Your task to perform on an android device: change alarm snooze length Image 0: 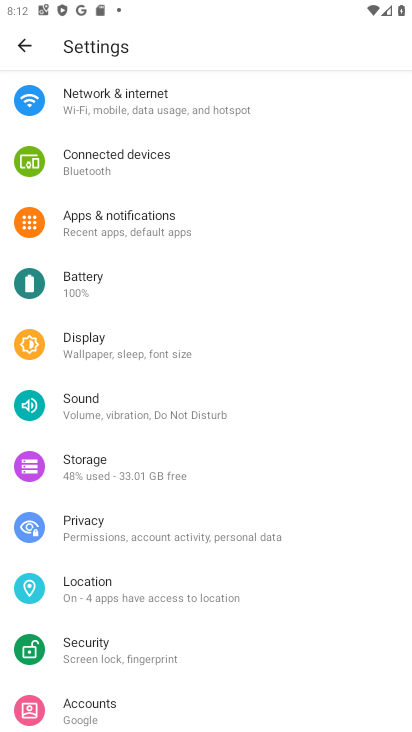
Step 0: press home button
Your task to perform on an android device: change alarm snooze length Image 1: 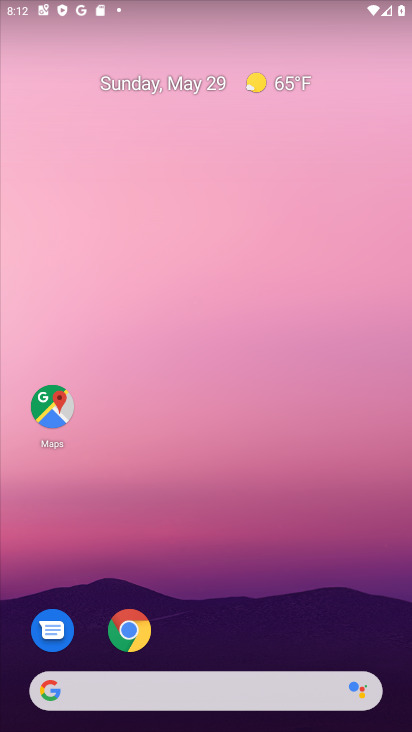
Step 1: drag from (194, 701) to (141, 125)
Your task to perform on an android device: change alarm snooze length Image 2: 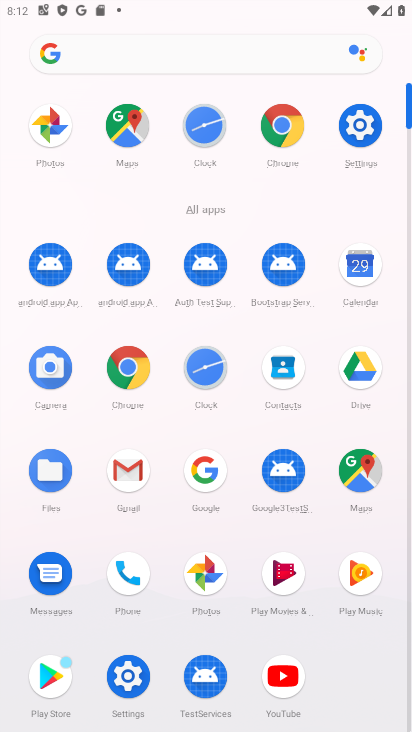
Step 2: click (207, 367)
Your task to perform on an android device: change alarm snooze length Image 3: 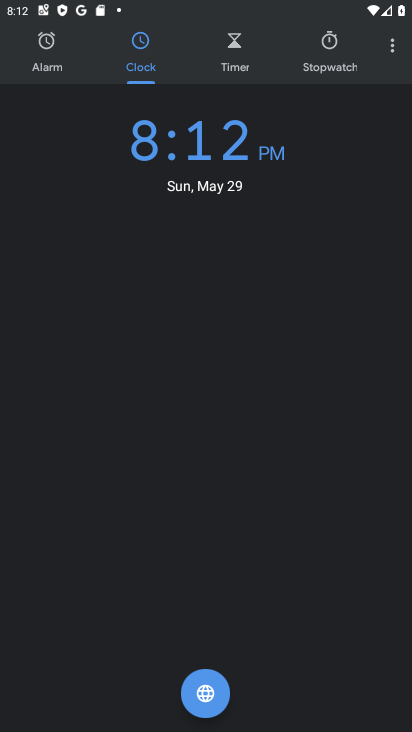
Step 3: click (395, 51)
Your task to perform on an android device: change alarm snooze length Image 4: 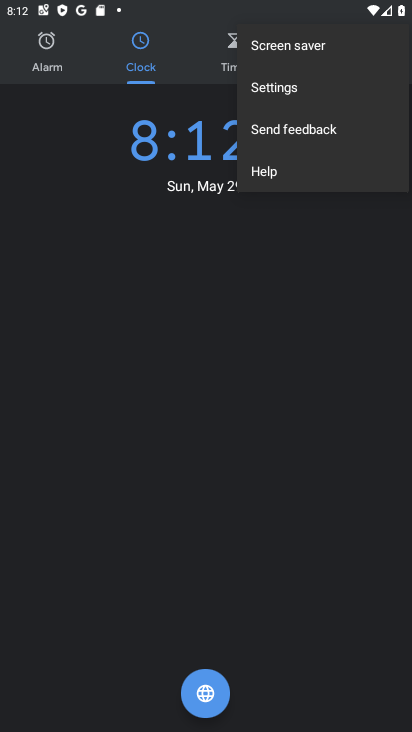
Step 4: click (281, 91)
Your task to perform on an android device: change alarm snooze length Image 5: 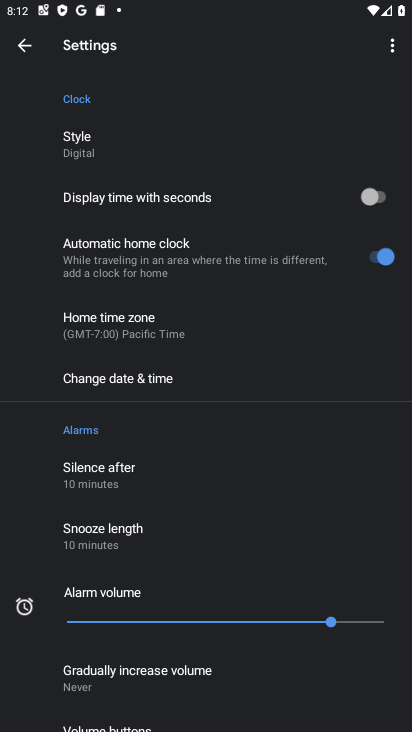
Step 5: drag from (142, 596) to (146, 427)
Your task to perform on an android device: change alarm snooze length Image 6: 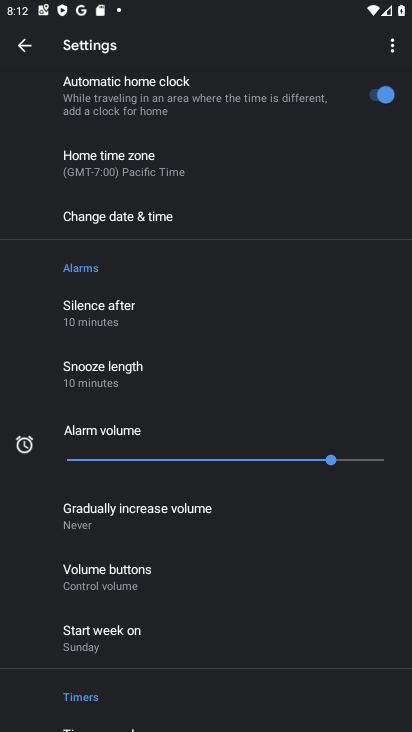
Step 6: click (95, 369)
Your task to perform on an android device: change alarm snooze length Image 7: 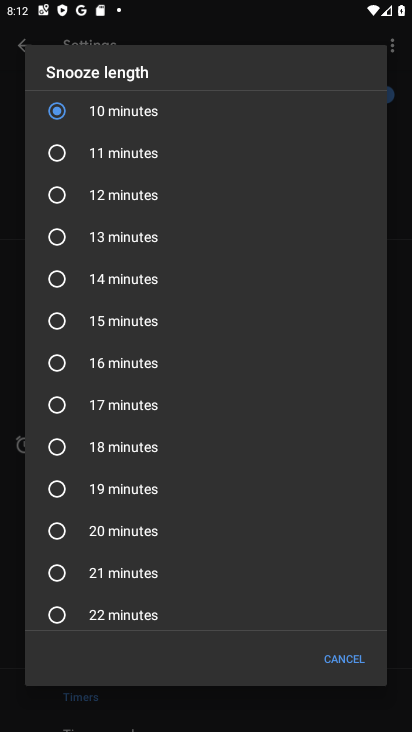
Step 7: click (61, 447)
Your task to perform on an android device: change alarm snooze length Image 8: 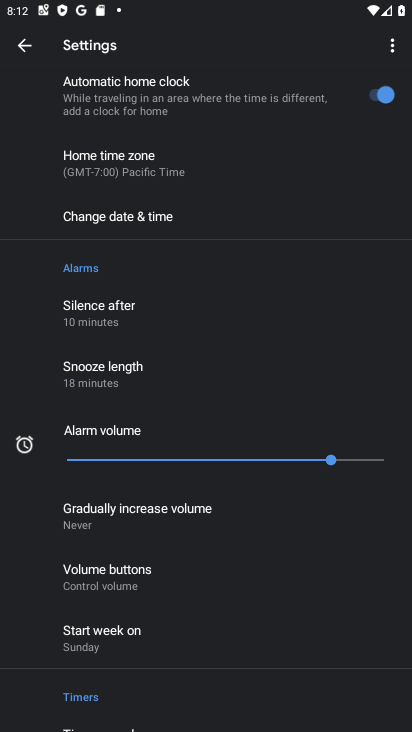
Step 8: task complete